Your task to perform on an android device: clear all cookies in the chrome app Image 0: 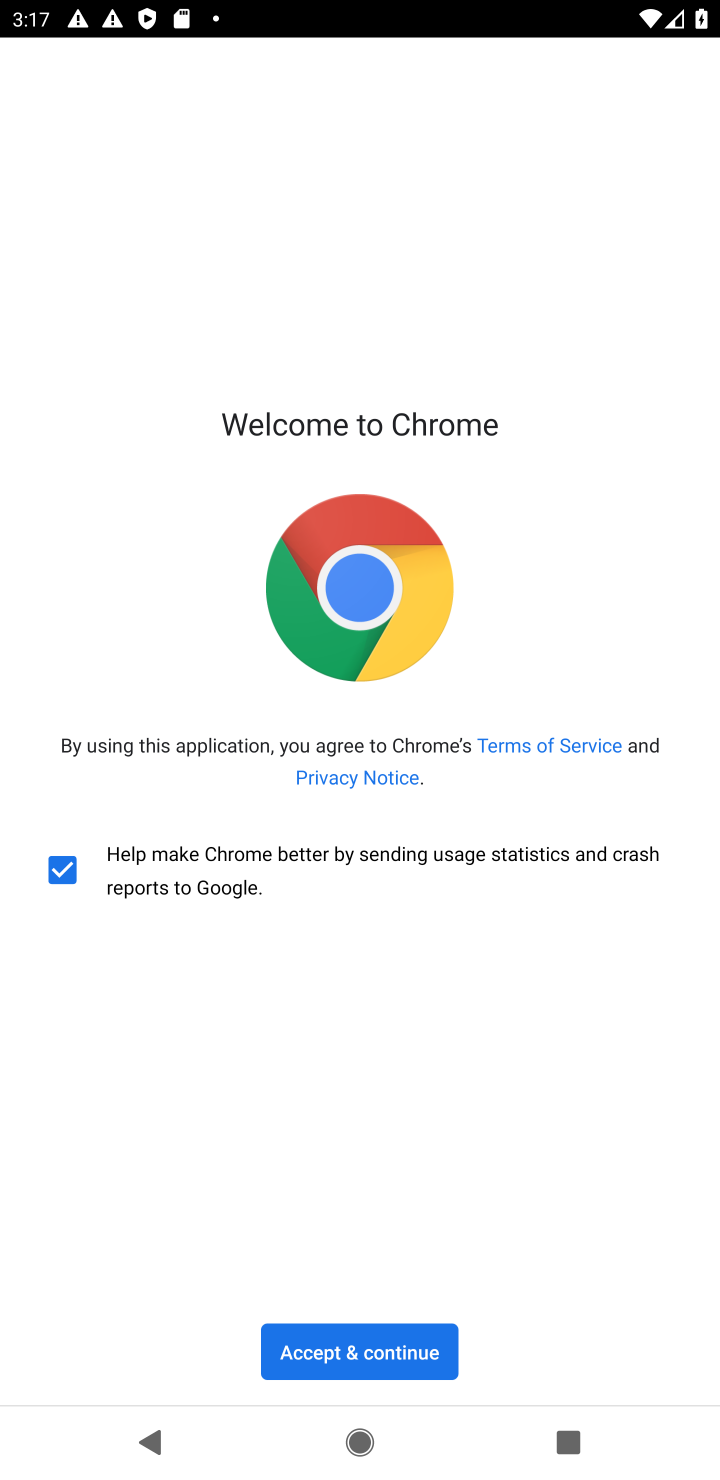
Step 0: click (339, 1354)
Your task to perform on an android device: clear all cookies in the chrome app Image 1: 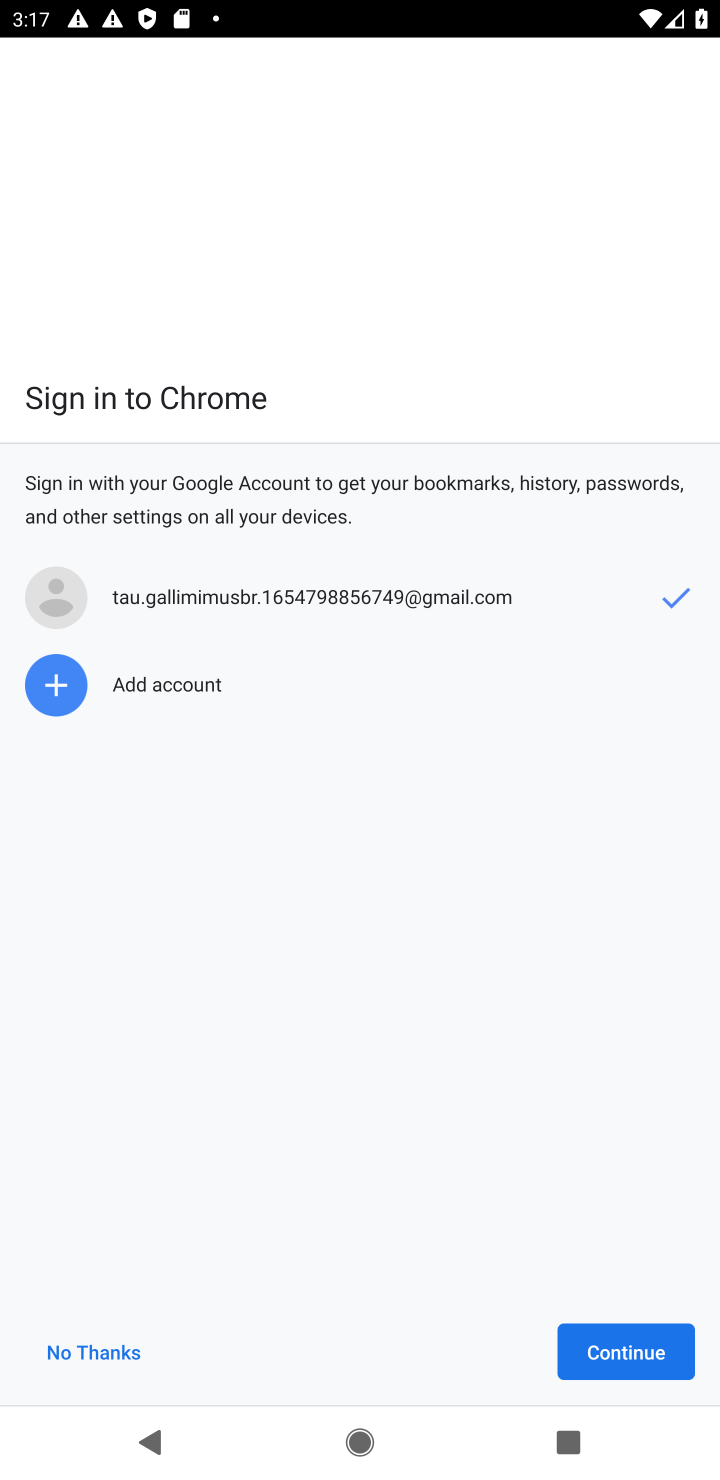
Step 1: click (661, 1342)
Your task to perform on an android device: clear all cookies in the chrome app Image 2: 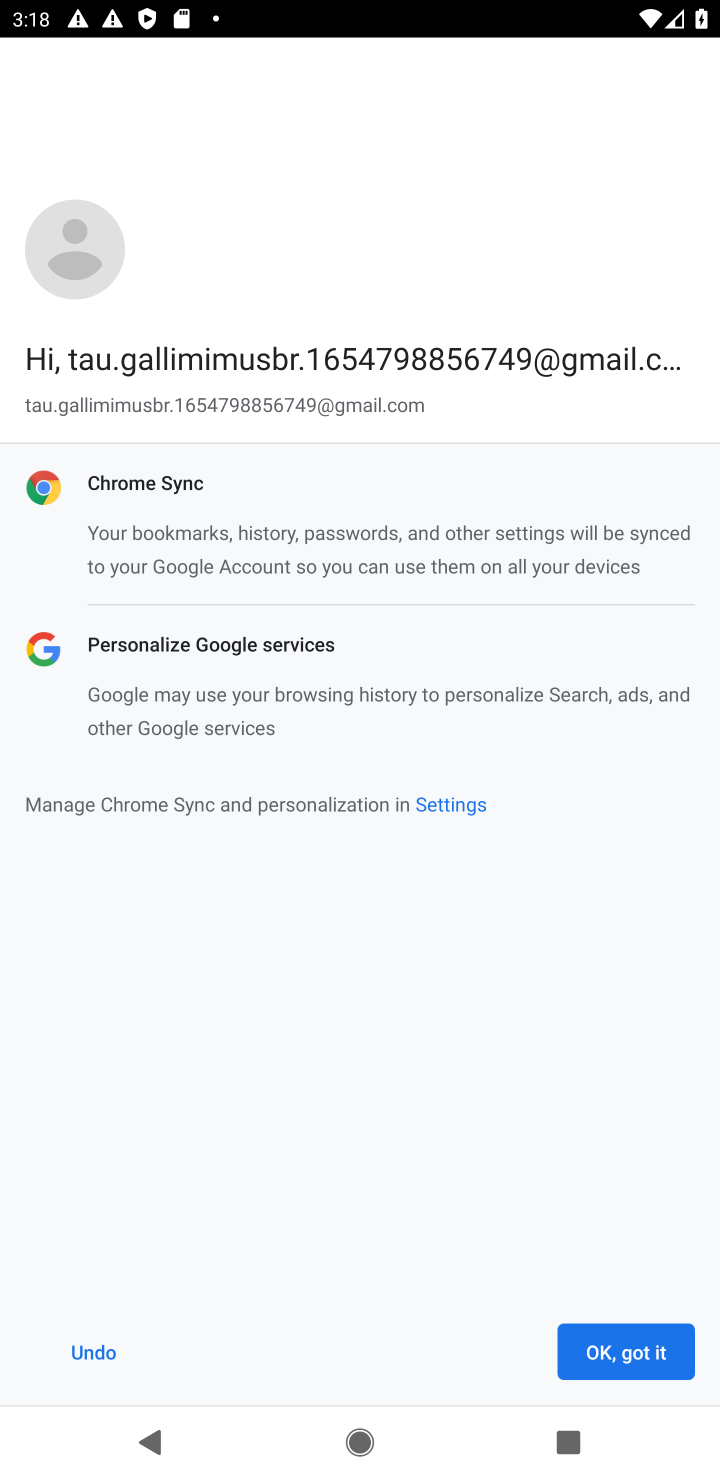
Step 2: click (652, 1350)
Your task to perform on an android device: clear all cookies in the chrome app Image 3: 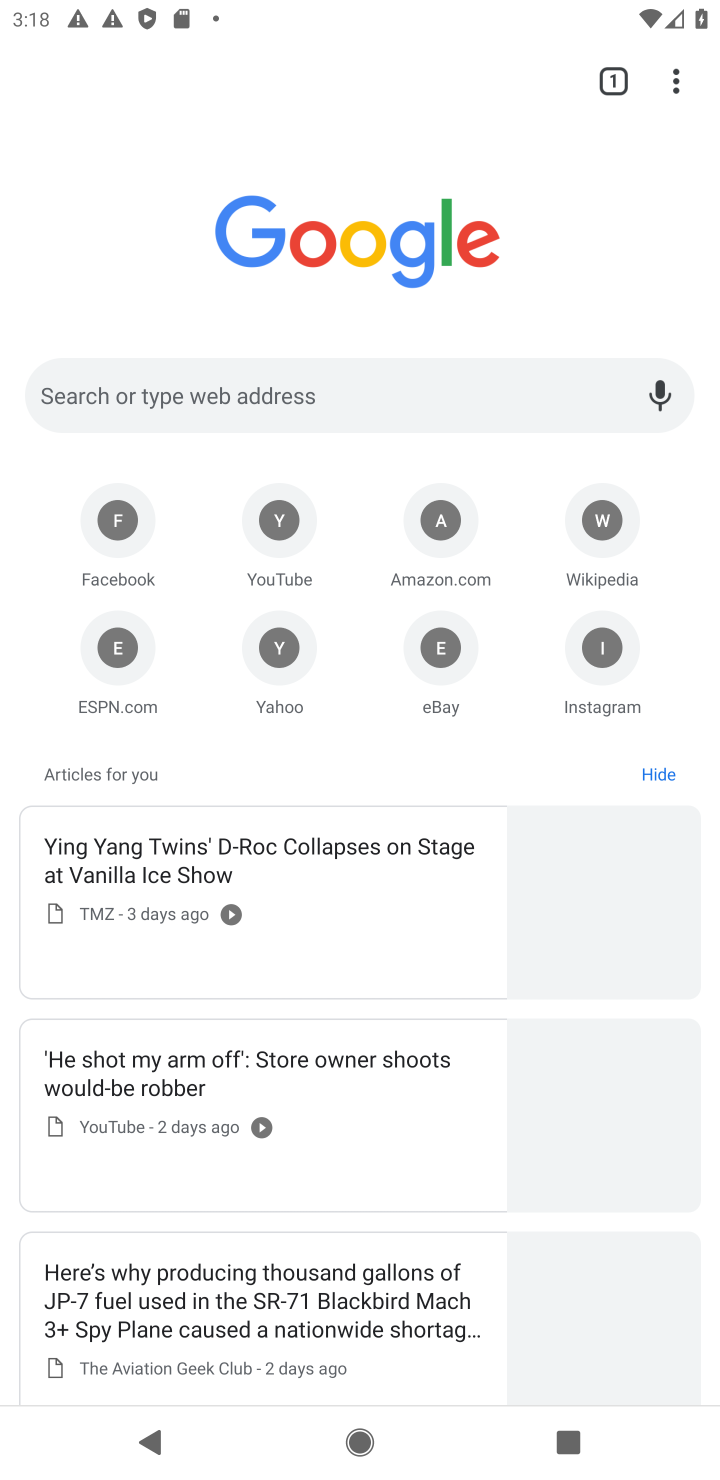
Step 3: click (682, 86)
Your task to perform on an android device: clear all cookies in the chrome app Image 4: 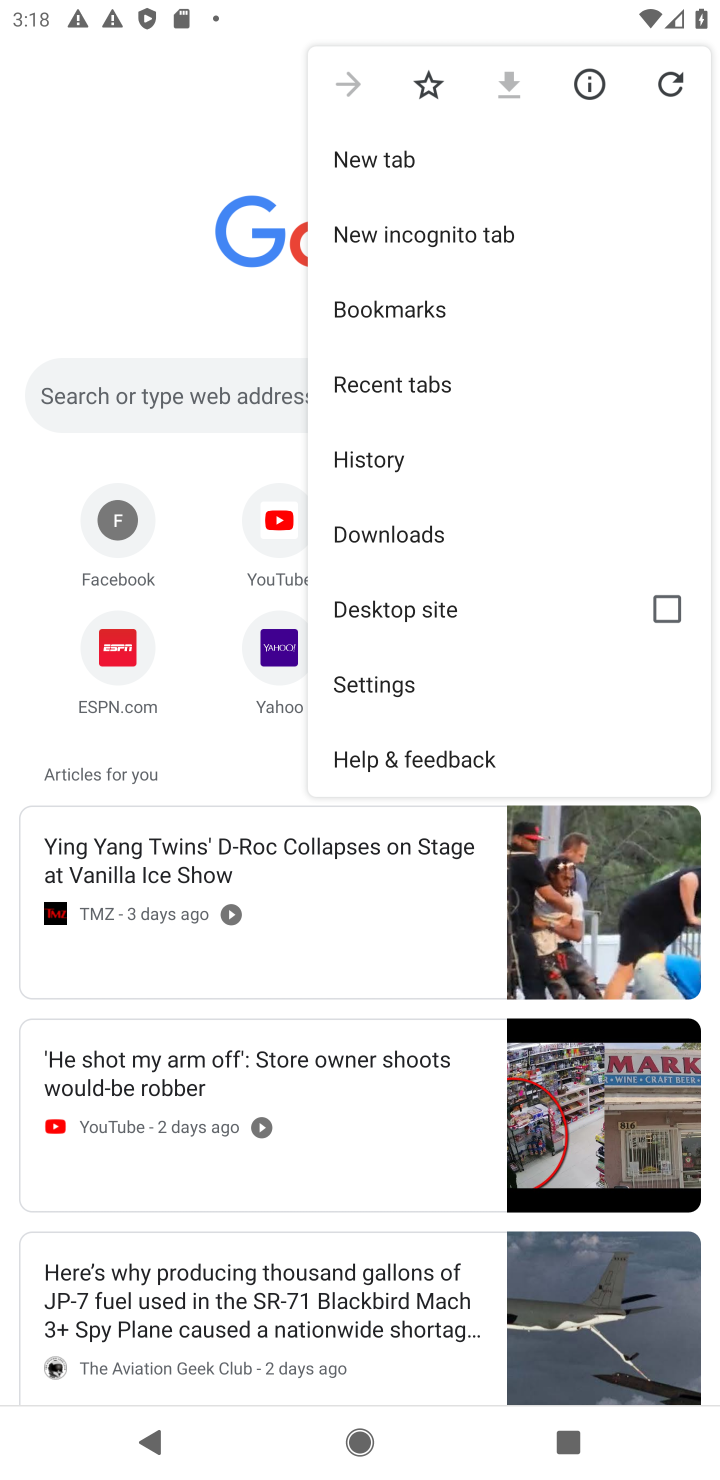
Step 4: drag from (455, 685) to (442, 454)
Your task to perform on an android device: clear all cookies in the chrome app Image 5: 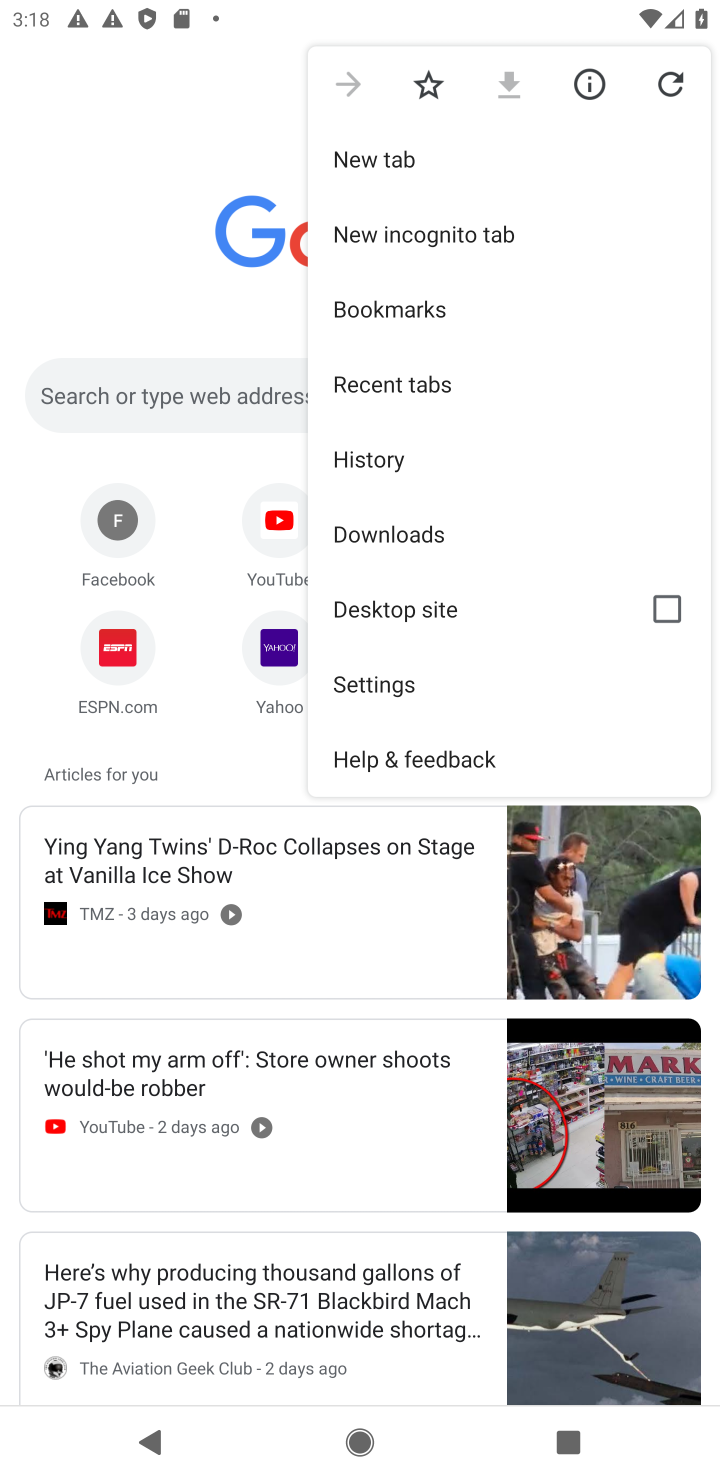
Step 5: click (442, 454)
Your task to perform on an android device: clear all cookies in the chrome app Image 6: 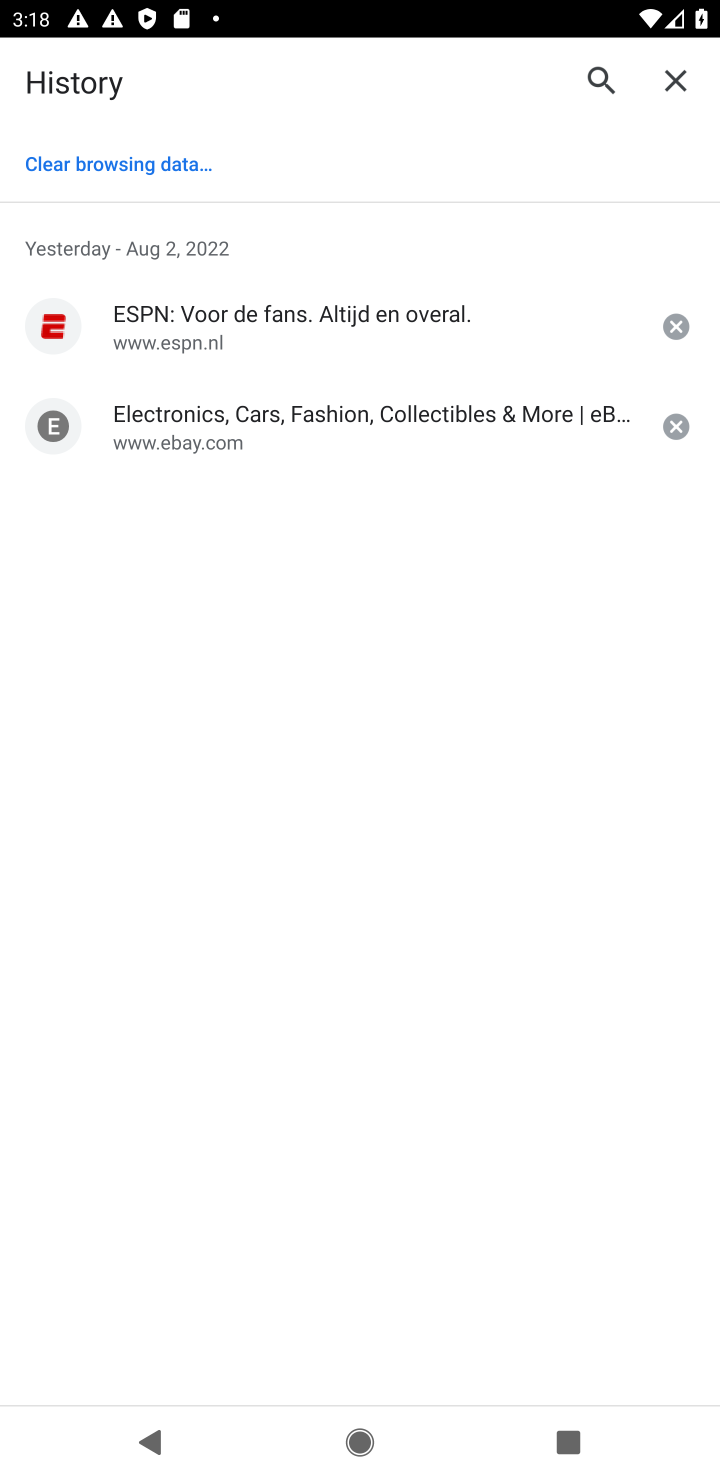
Step 6: click (168, 165)
Your task to perform on an android device: clear all cookies in the chrome app Image 7: 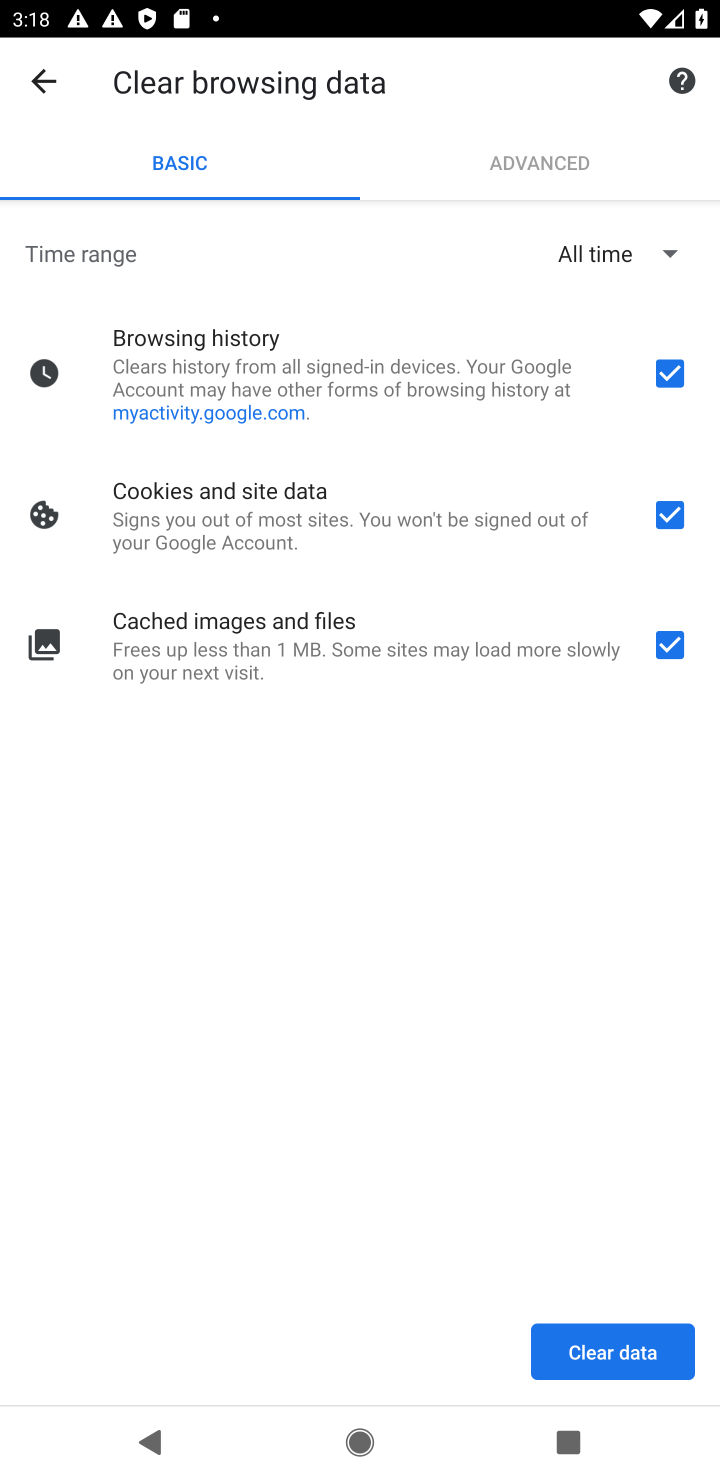
Step 7: click (671, 622)
Your task to perform on an android device: clear all cookies in the chrome app Image 8: 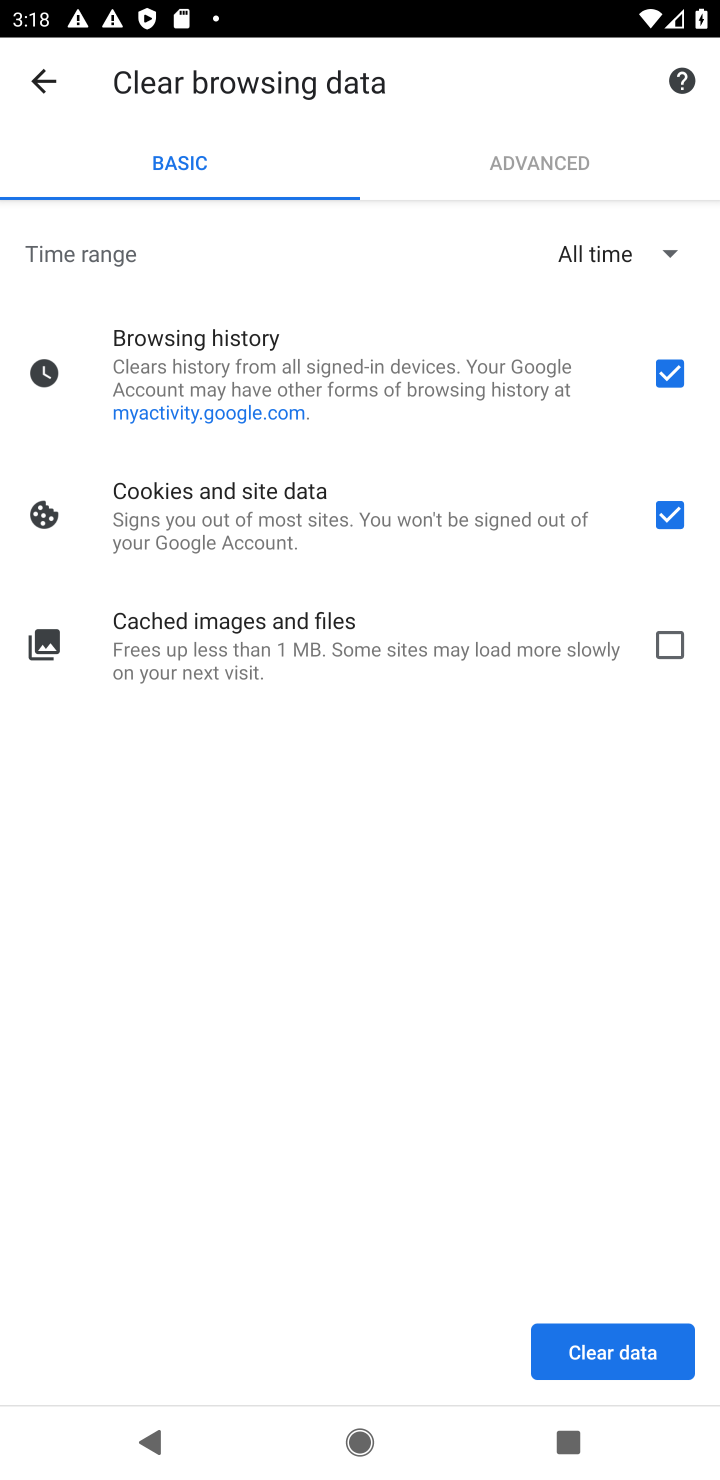
Step 8: click (664, 349)
Your task to perform on an android device: clear all cookies in the chrome app Image 9: 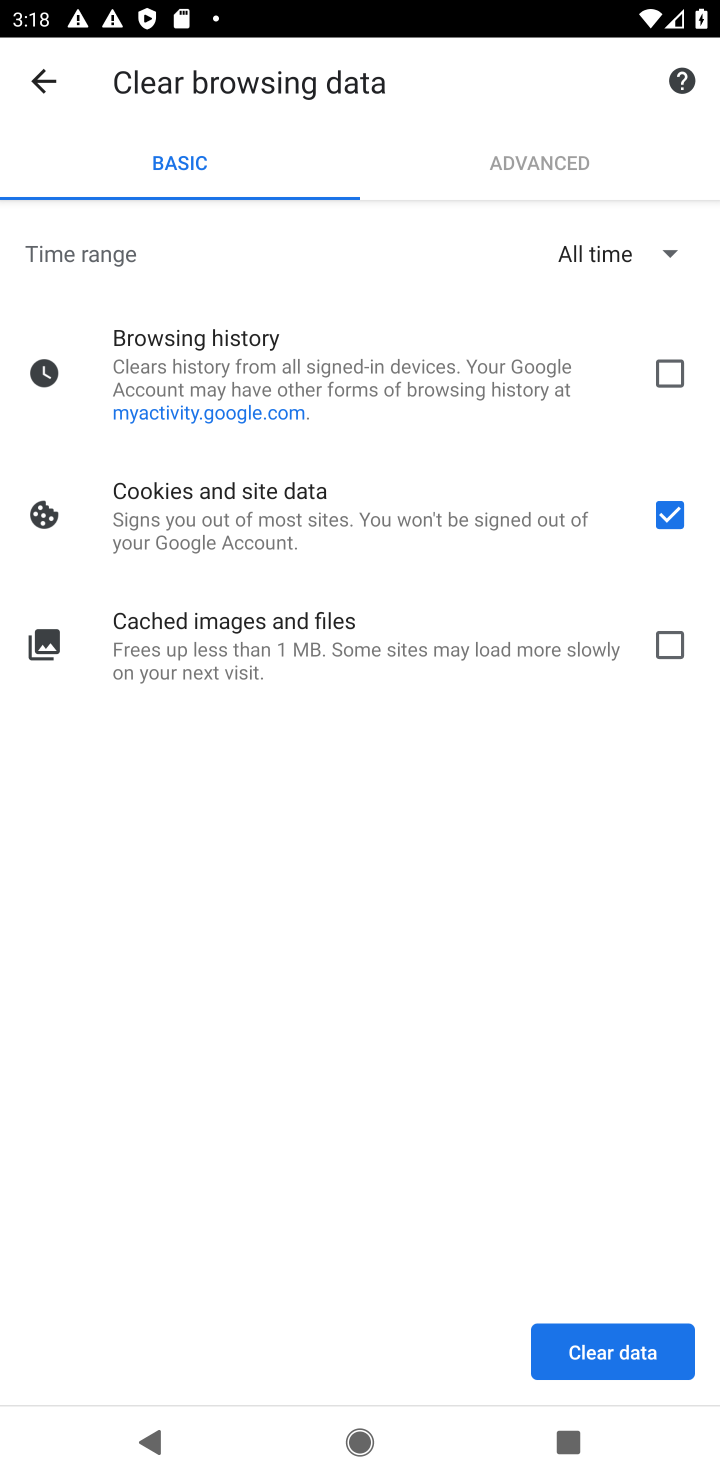
Step 9: click (654, 1333)
Your task to perform on an android device: clear all cookies in the chrome app Image 10: 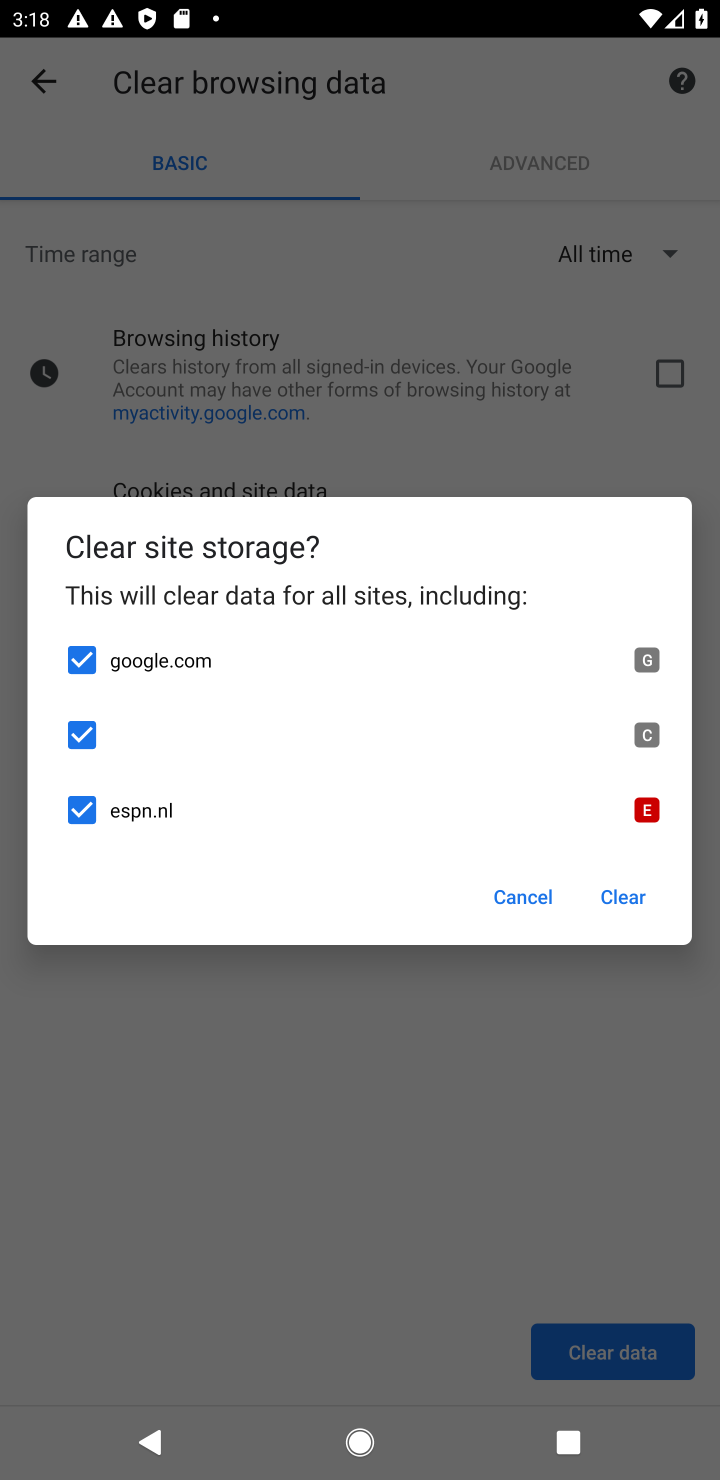
Step 10: click (611, 904)
Your task to perform on an android device: clear all cookies in the chrome app Image 11: 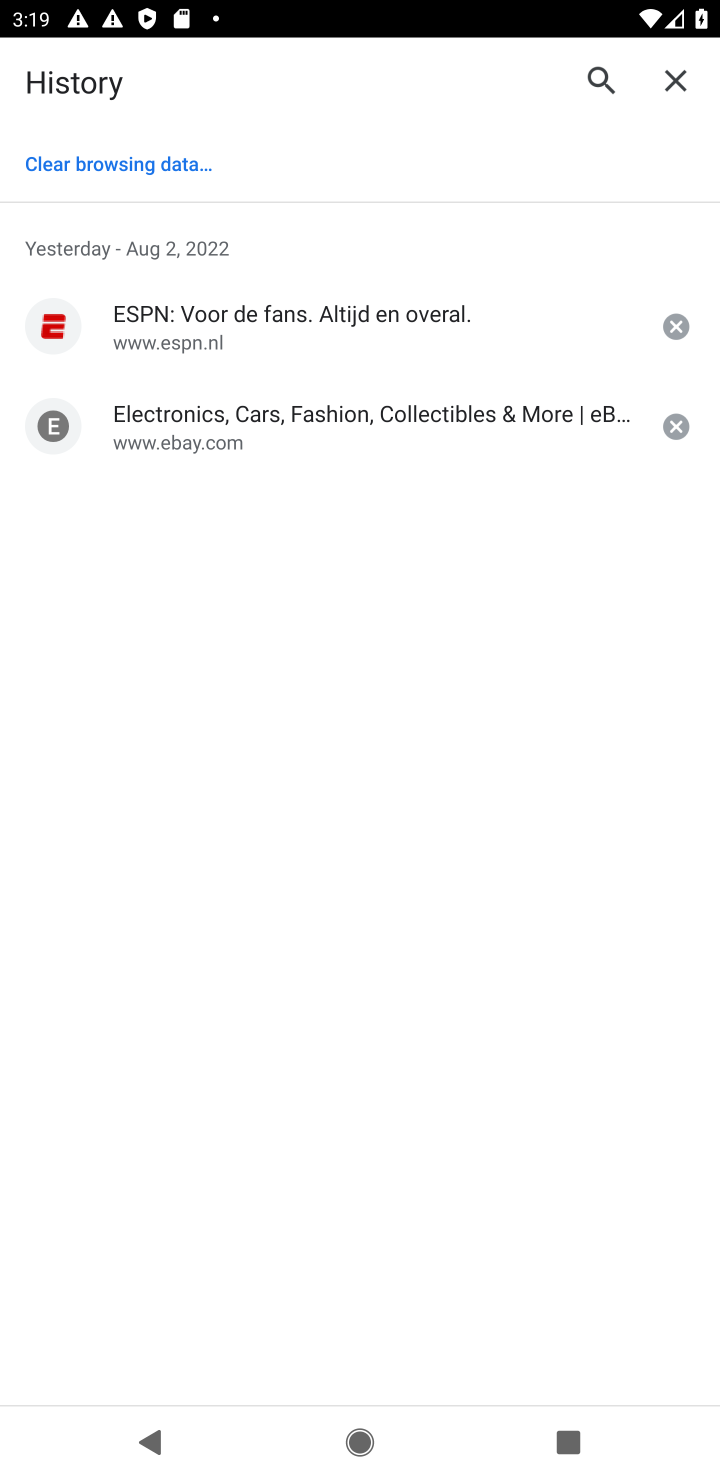
Step 11: task complete